Your task to perform on an android device: change alarm snooze length Image 0: 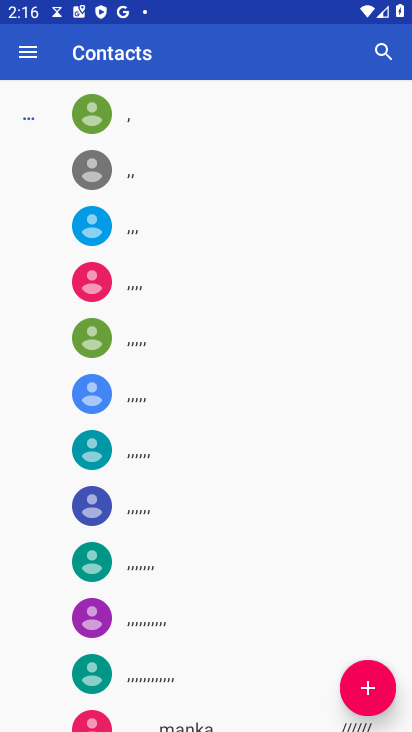
Step 0: press home button
Your task to perform on an android device: change alarm snooze length Image 1: 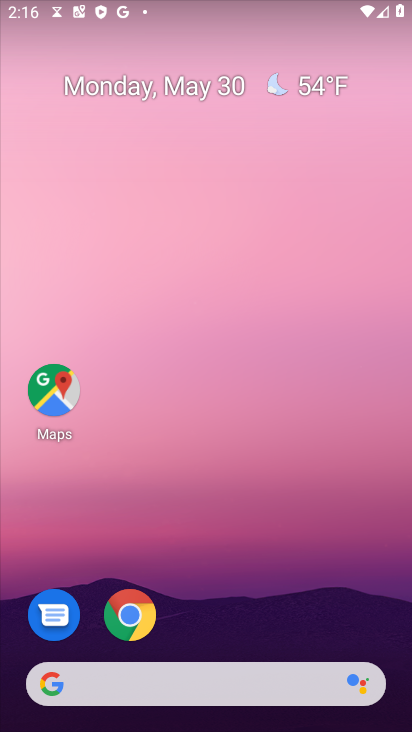
Step 1: drag from (295, 584) to (264, 172)
Your task to perform on an android device: change alarm snooze length Image 2: 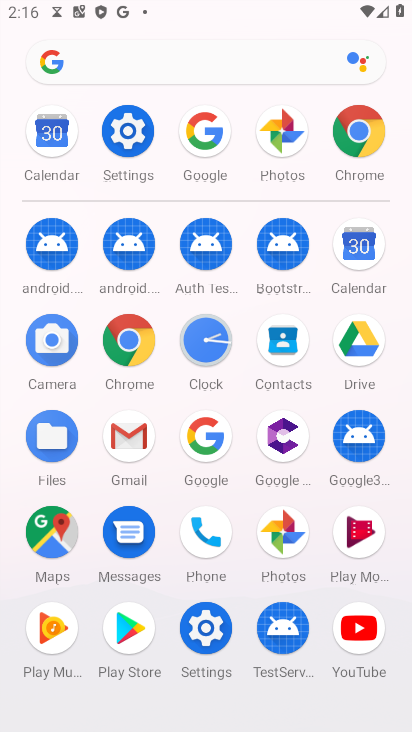
Step 2: click (211, 361)
Your task to perform on an android device: change alarm snooze length Image 3: 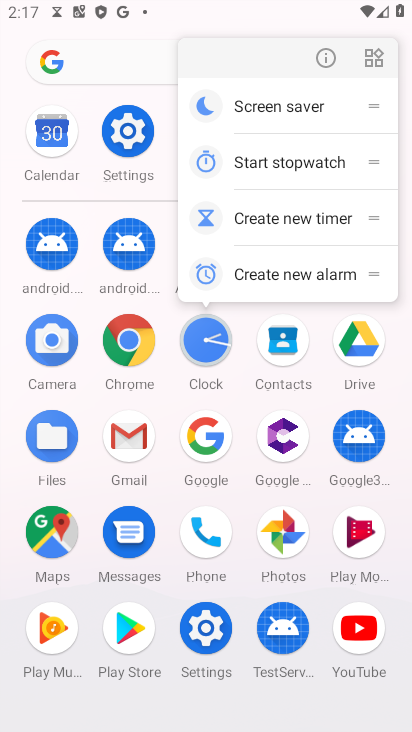
Step 3: click (211, 339)
Your task to perform on an android device: change alarm snooze length Image 4: 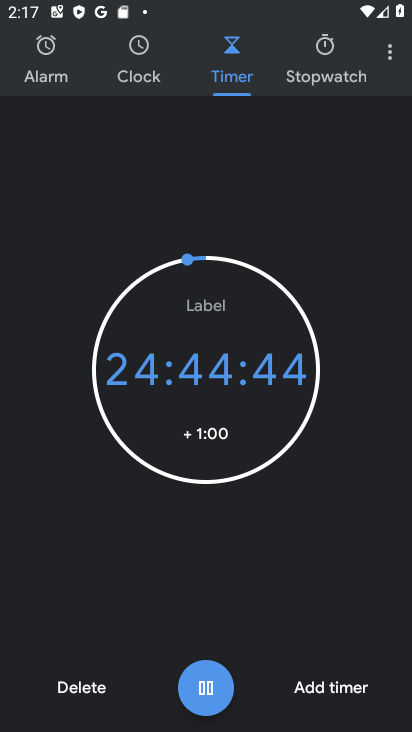
Step 4: click (380, 56)
Your task to perform on an android device: change alarm snooze length Image 5: 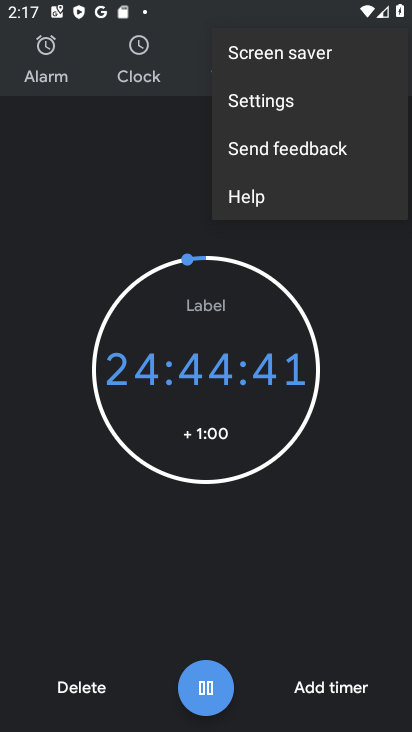
Step 5: click (286, 106)
Your task to perform on an android device: change alarm snooze length Image 6: 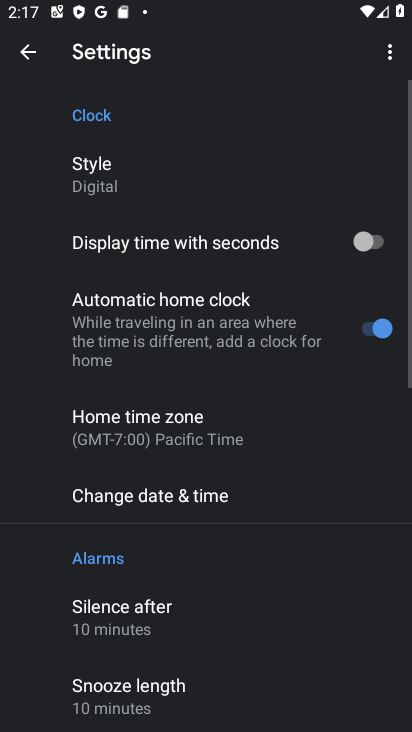
Step 6: drag from (172, 625) to (202, 199)
Your task to perform on an android device: change alarm snooze length Image 7: 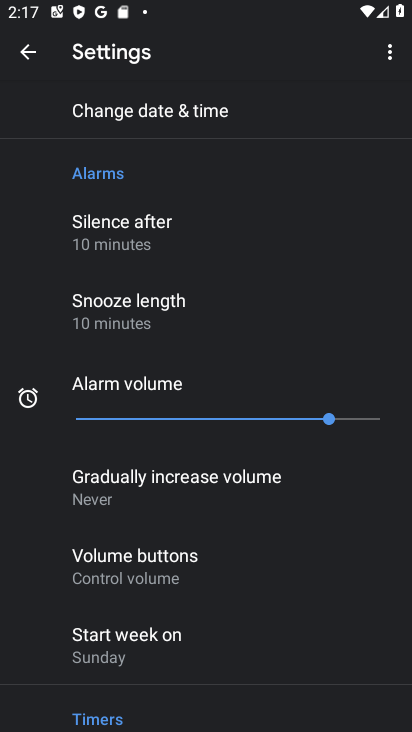
Step 7: drag from (147, 562) to (168, 228)
Your task to perform on an android device: change alarm snooze length Image 8: 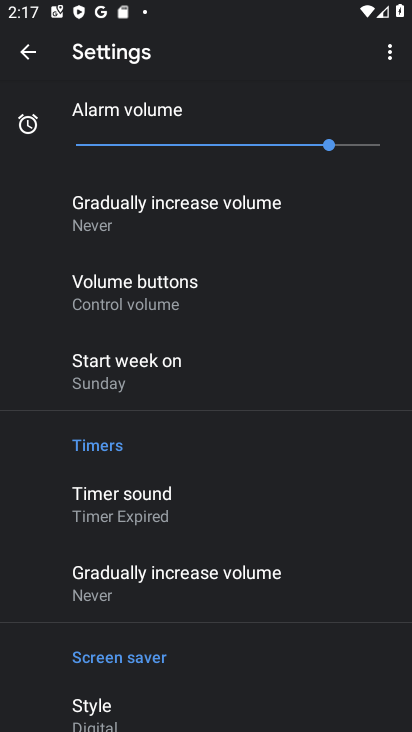
Step 8: drag from (168, 547) to (229, 230)
Your task to perform on an android device: change alarm snooze length Image 9: 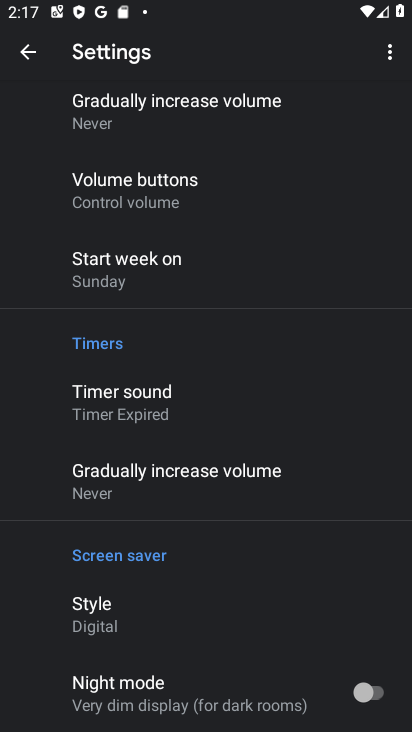
Step 9: drag from (196, 528) to (207, 225)
Your task to perform on an android device: change alarm snooze length Image 10: 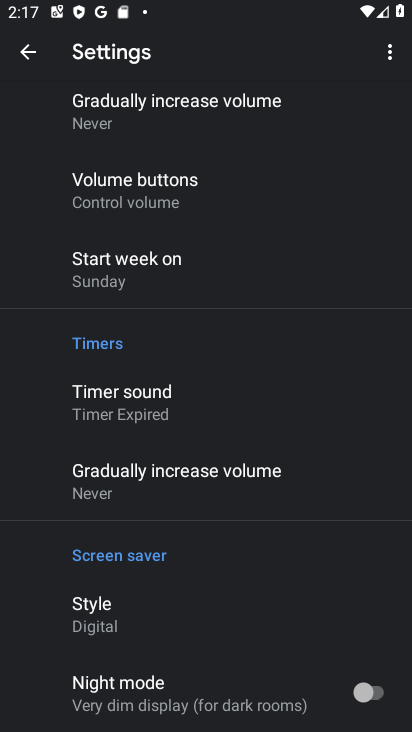
Step 10: drag from (159, 578) to (182, 286)
Your task to perform on an android device: change alarm snooze length Image 11: 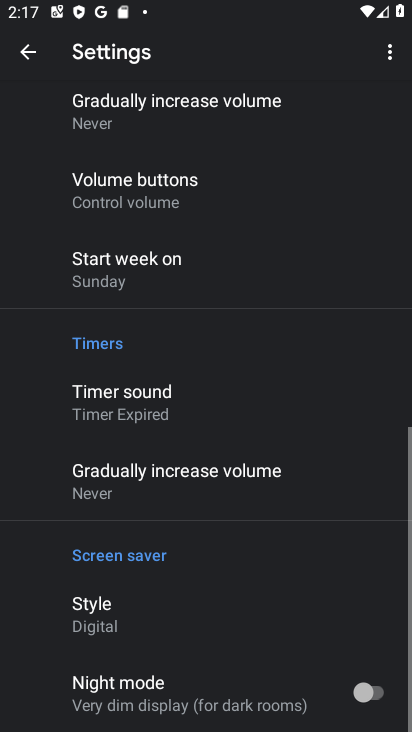
Step 11: drag from (184, 288) to (181, 592)
Your task to perform on an android device: change alarm snooze length Image 12: 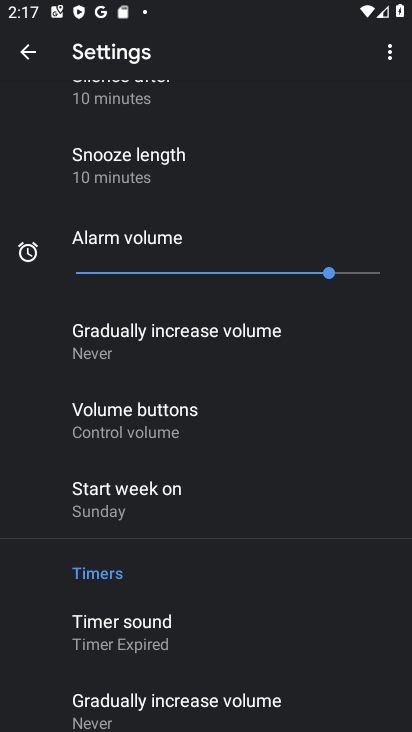
Step 12: click (165, 179)
Your task to perform on an android device: change alarm snooze length Image 13: 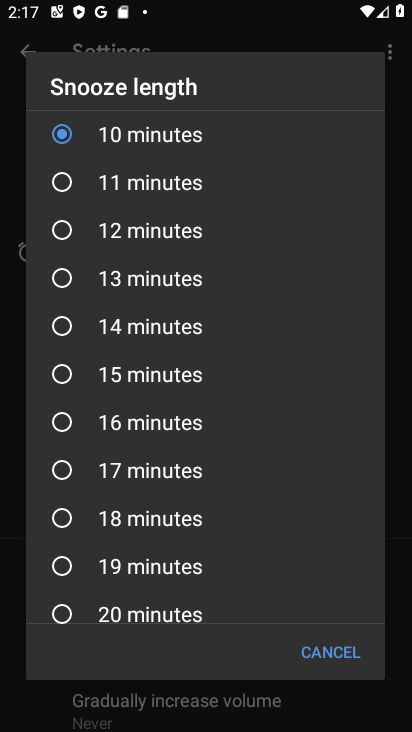
Step 13: click (157, 387)
Your task to perform on an android device: change alarm snooze length Image 14: 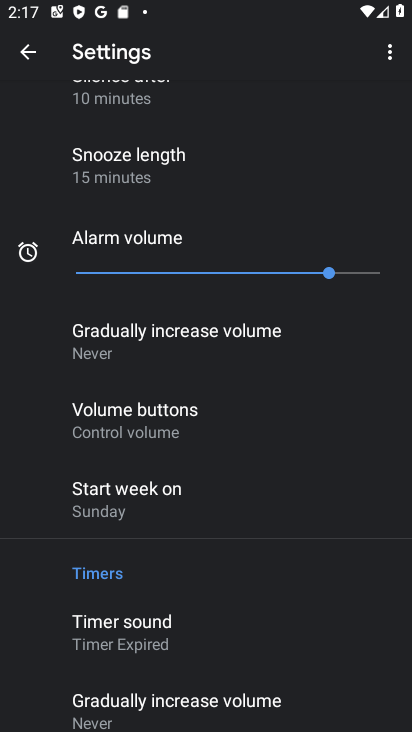
Step 14: task complete